Your task to perform on an android device: Show the shopping cart on bestbuy. Search for razer kraken on bestbuy, select the first entry, add it to the cart, then select checkout. Image 0: 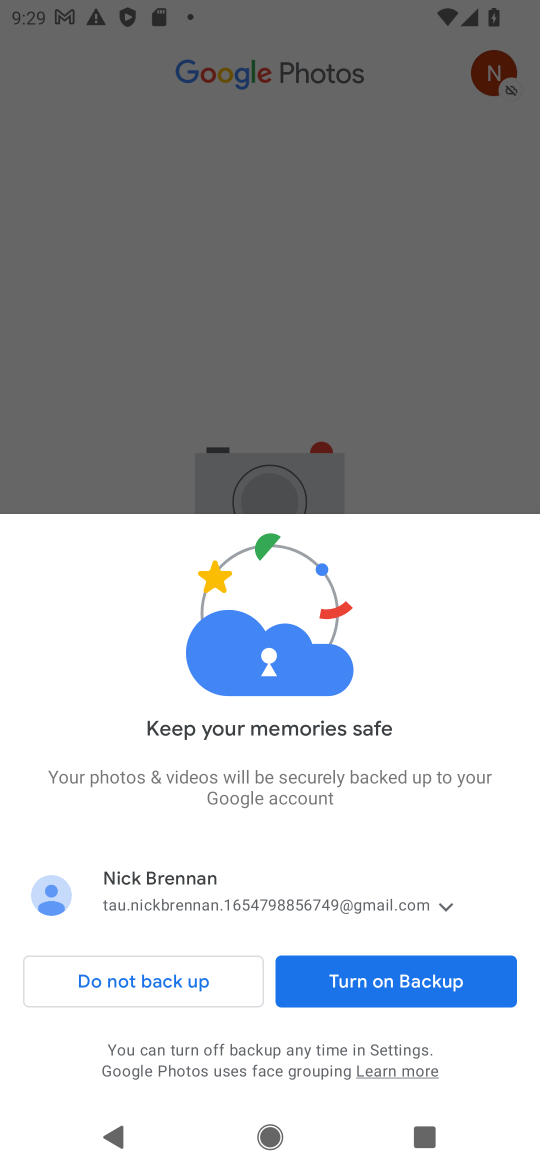
Step 0: press home button
Your task to perform on an android device: Show the shopping cart on bestbuy. Search for razer kraken on bestbuy, select the first entry, add it to the cart, then select checkout. Image 1: 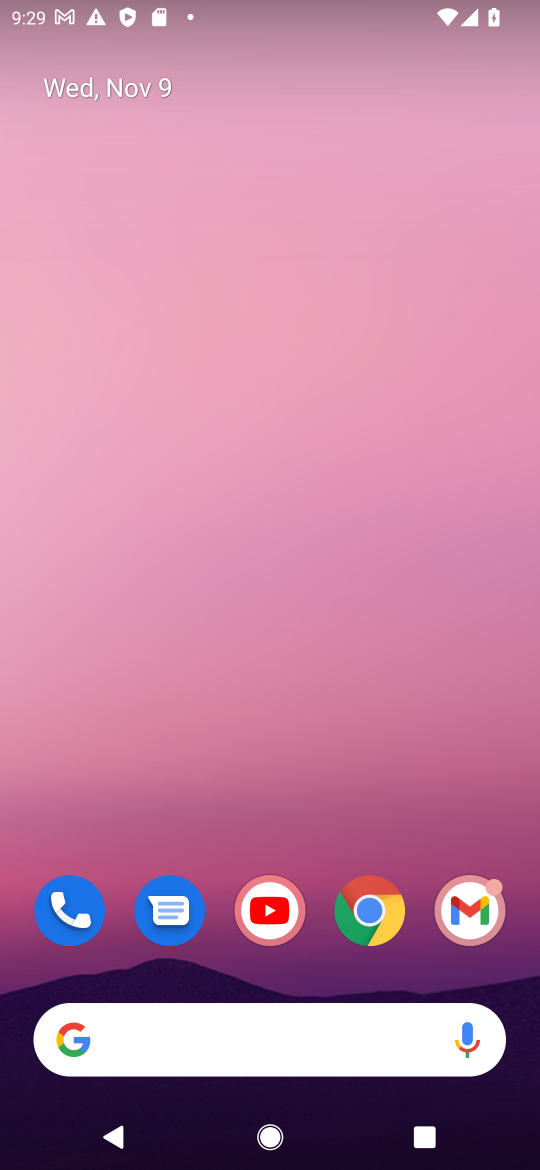
Step 1: click (371, 916)
Your task to perform on an android device: Show the shopping cart on bestbuy. Search for razer kraken on bestbuy, select the first entry, add it to the cart, then select checkout. Image 2: 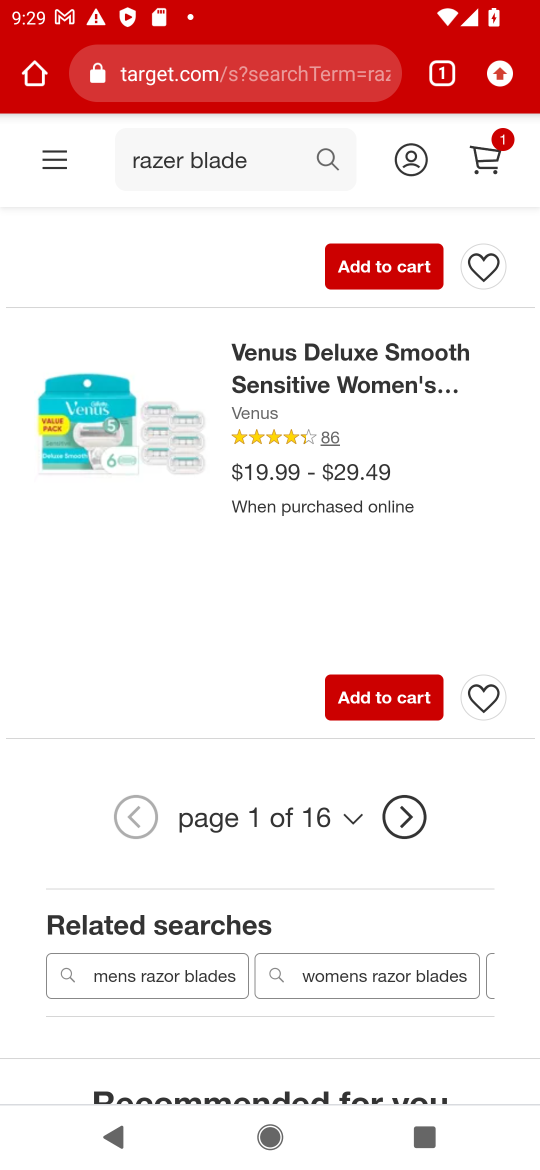
Step 2: click (200, 83)
Your task to perform on an android device: Show the shopping cart on bestbuy. Search for razer kraken on bestbuy, select the first entry, add it to the cart, then select checkout. Image 3: 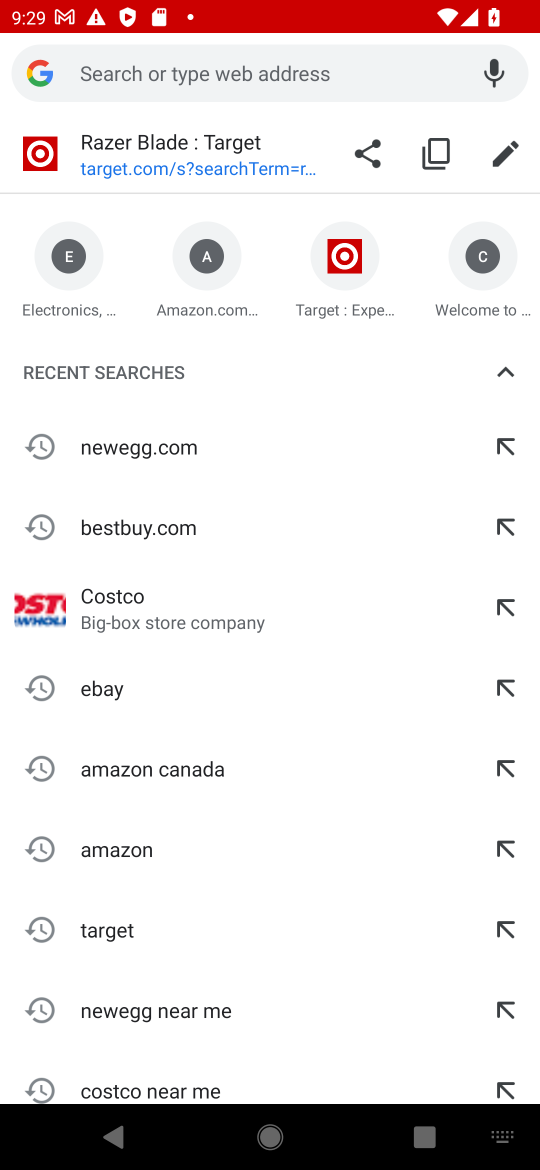
Step 3: click (123, 541)
Your task to perform on an android device: Show the shopping cart on bestbuy. Search for razer kraken on bestbuy, select the first entry, add it to the cart, then select checkout. Image 4: 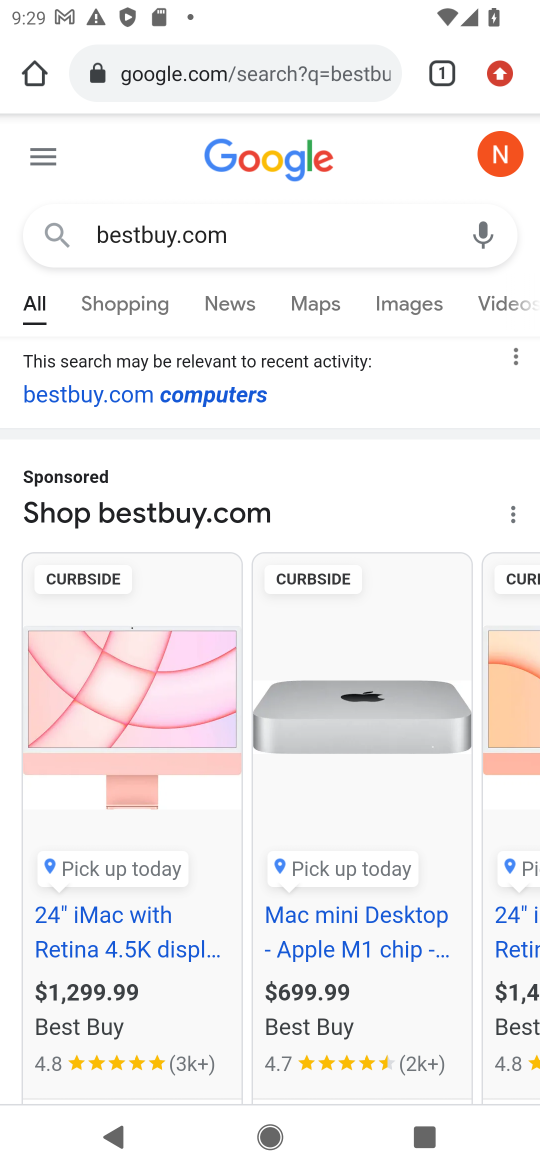
Step 4: drag from (239, 798) to (229, 295)
Your task to perform on an android device: Show the shopping cart on bestbuy. Search for razer kraken on bestbuy, select the first entry, add it to the cart, then select checkout. Image 5: 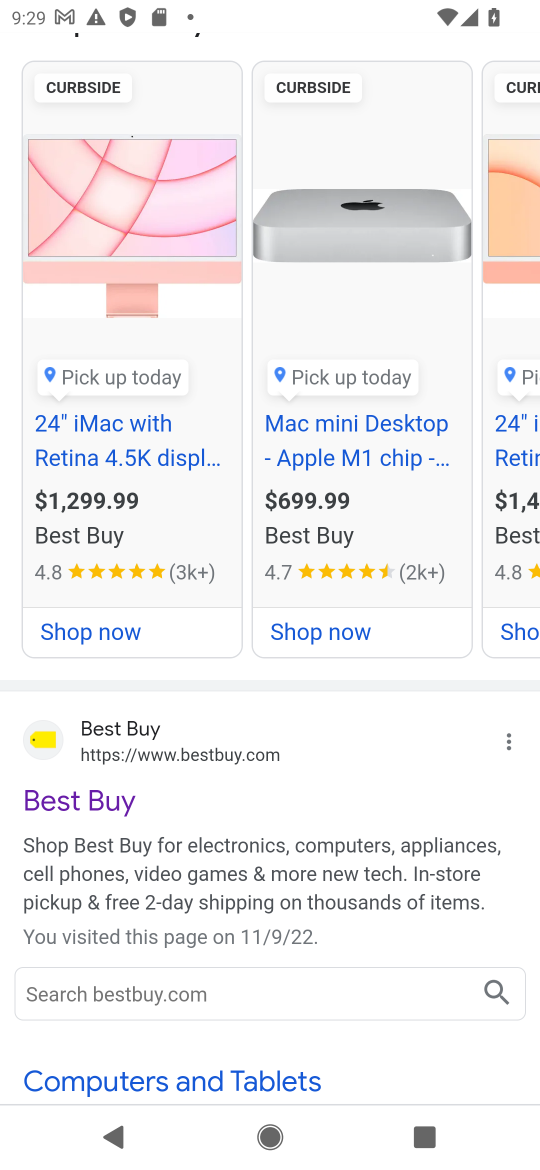
Step 5: click (87, 803)
Your task to perform on an android device: Show the shopping cart on bestbuy. Search for razer kraken on bestbuy, select the first entry, add it to the cart, then select checkout. Image 6: 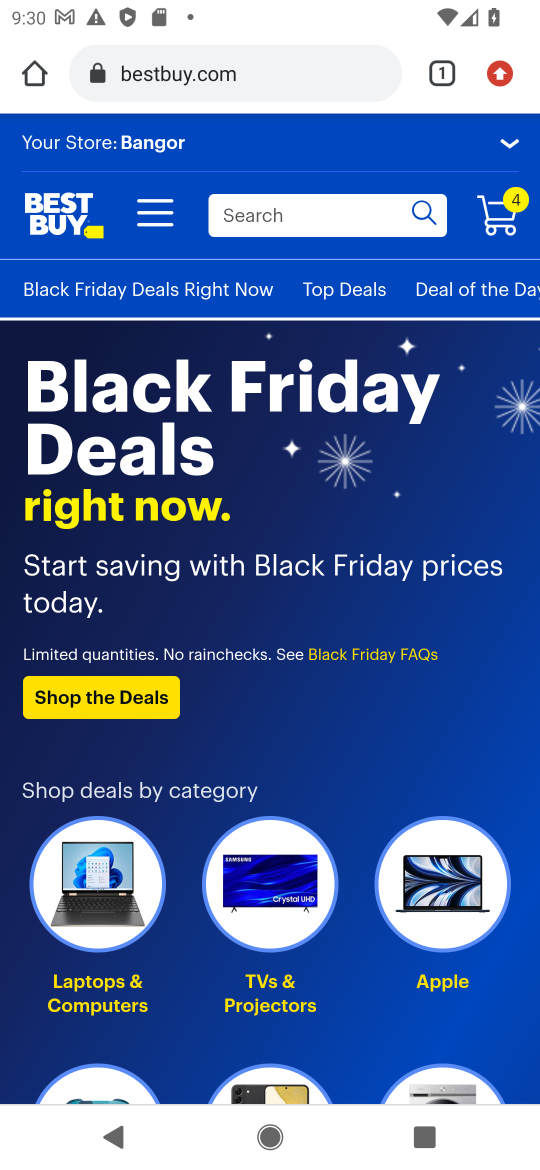
Step 6: click (238, 213)
Your task to perform on an android device: Show the shopping cart on bestbuy. Search for razer kraken on bestbuy, select the first entry, add it to the cart, then select checkout. Image 7: 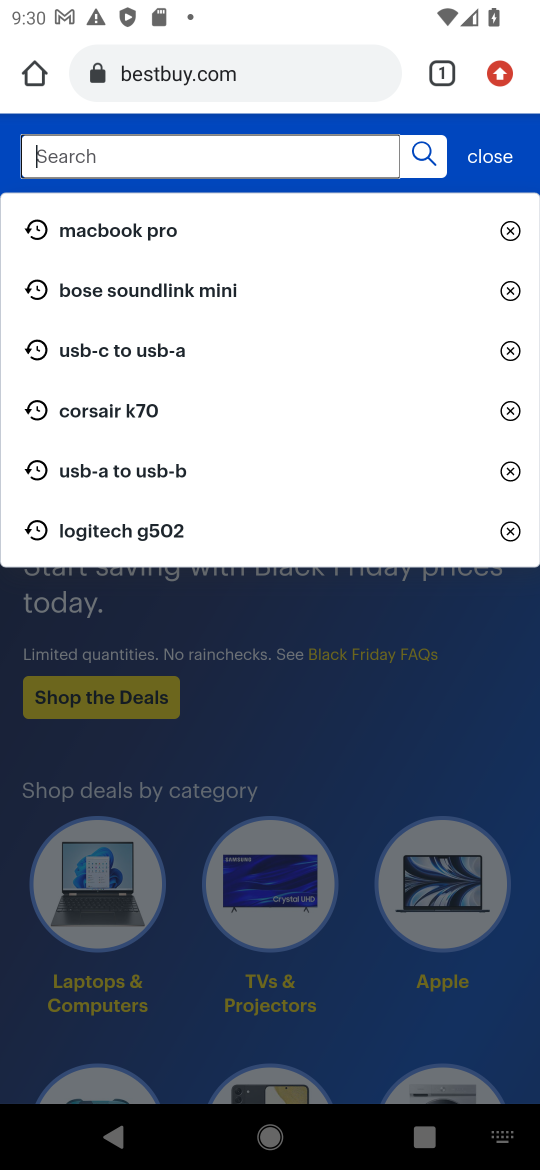
Step 7: type "razer kraken"
Your task to perform on an android device: Show the shopping cart on bestbuy. Search for razer kraken on bestbuy, select the first entry, add it to the cart, then select checkout. Image 8: 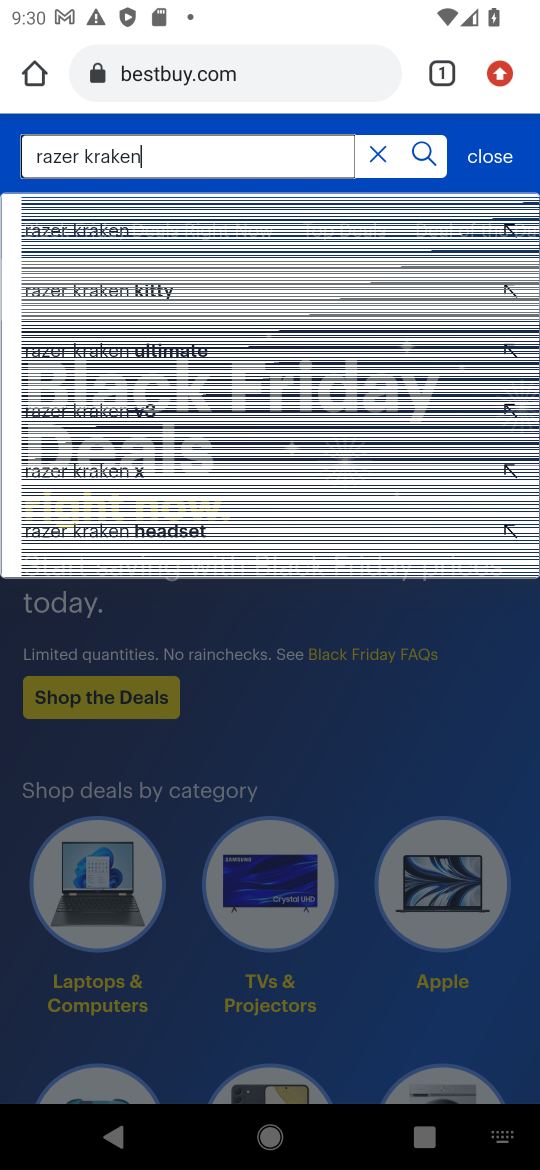
Step 8: click (73, 241)
Your task to perform on an android device: Show the shopping cart on bestbuy. Search for razer kraken on bestbuy, select the first entry, add it to the cart, then select checkout. Image 9: 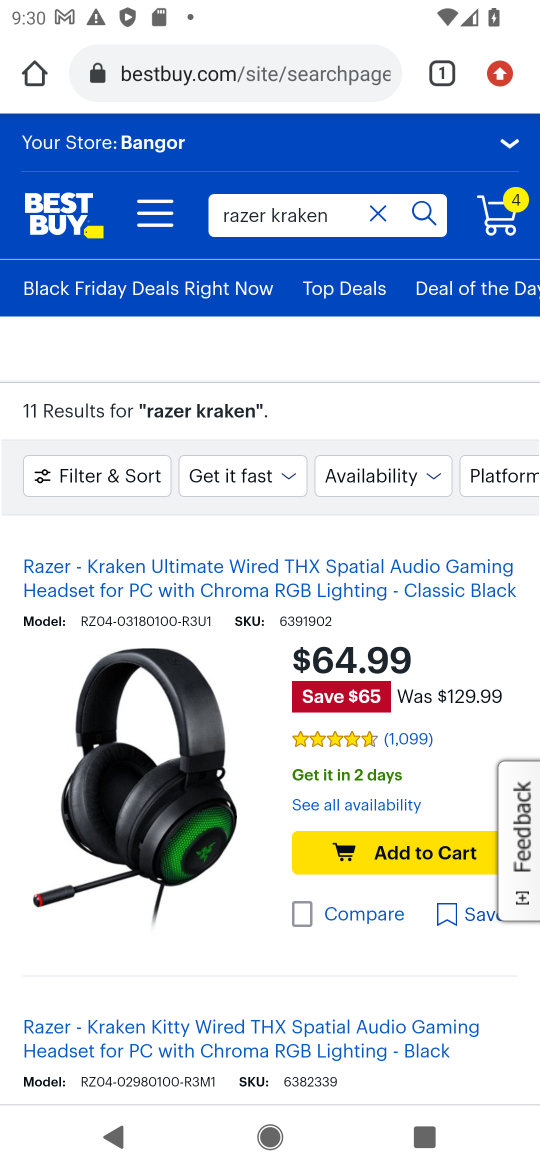
Step 9: click (490, 233)
Your task to perform on an android device: Show the shopping cart on bestbuy. Search for razer kraken on bestbuy, select the first entry, add it to the cart, then select checkout. Image 10: 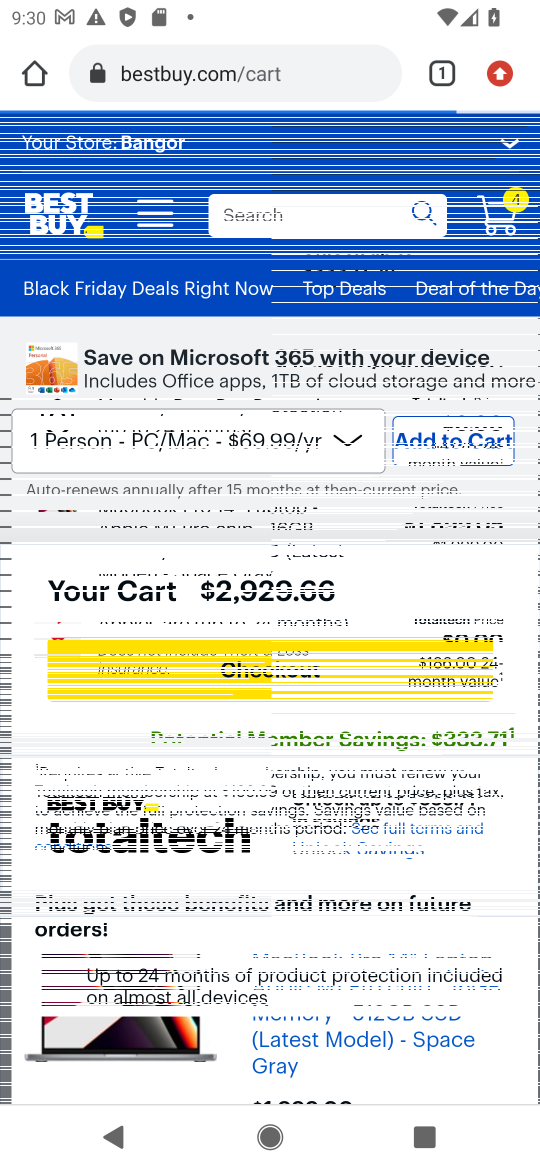
Step 10: click (263, 228)
Your task to perform on an android device: Show the shopping cart on bestbuy. Search for razer kraken on bestbuy, select the first entry, add it to the cart, then select checkout. Image 11: 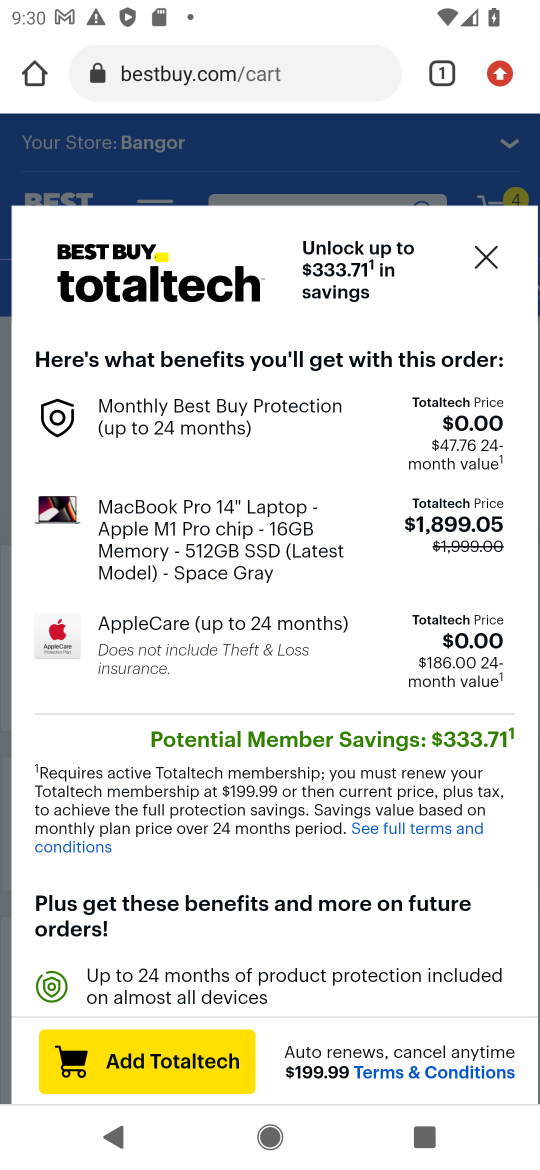
Step 11: click (488, 267)
Your task to perform on an android device: Show the shopping cart on bestbuy. Search for razer kraken on bestbuy, select the first entry, add it to the cart, then select checkout. Image 12: 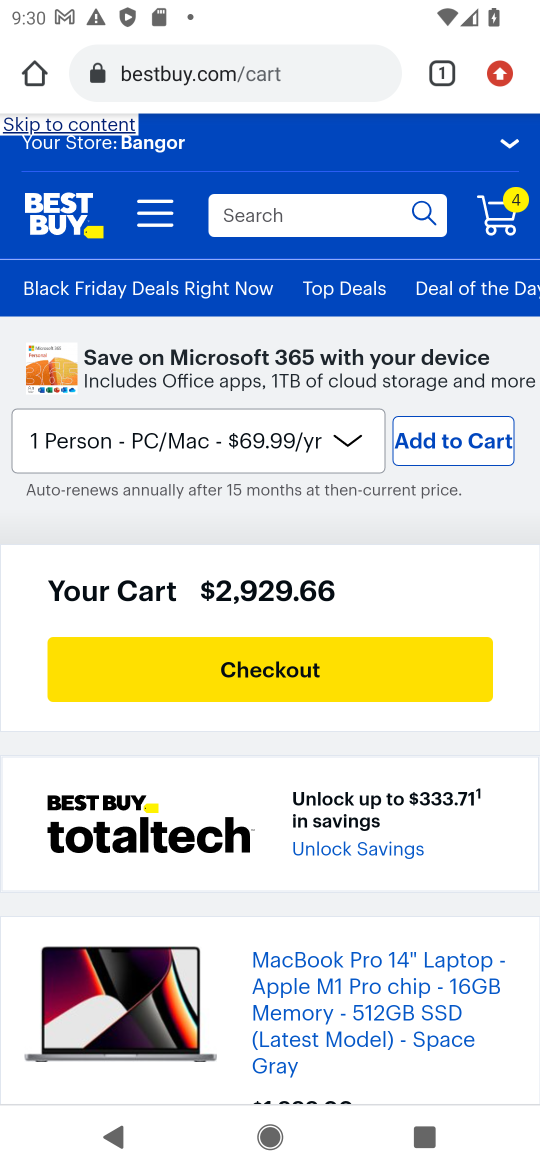
Step 12: click (305, 224)
Your task to perform on an android device: Show the shopping cart on bestbuy. Search for razer kraken on bestbuy, select the first entry, add it to the cart, then select checkout. Image 13: 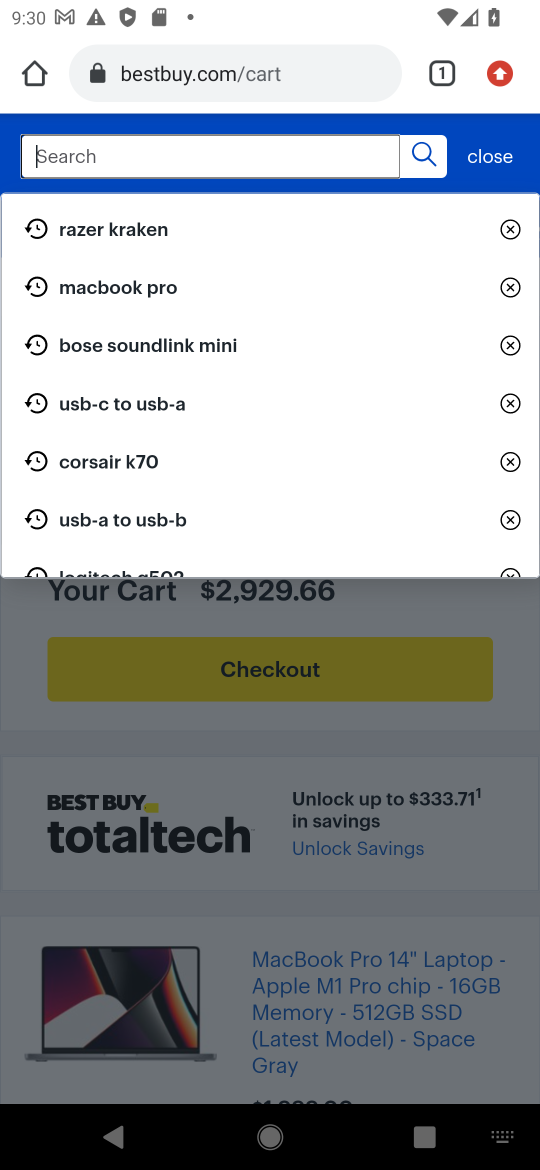
Step 13: click (162, 234)
Your task to perform on an android device: Show the shopping cart on bestbuy. Search for razer kraken on bestbuy, select the first entry, add it to the cart, then select checkout. Image 14: 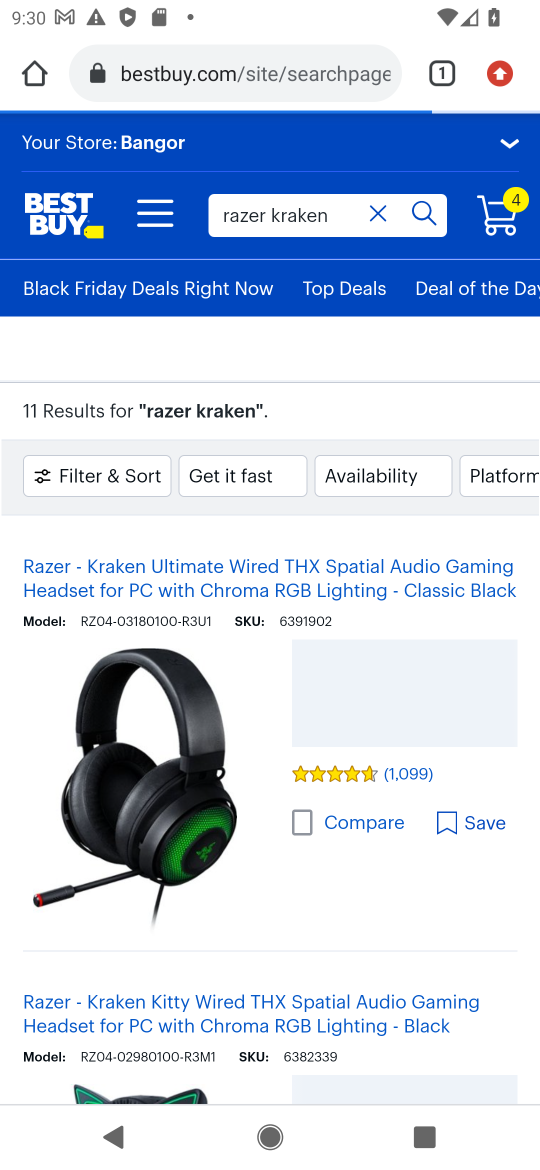
Step 14: drag from (351, 847) to (334, 537)
Your task to perform on an android device: Show the shopping cart on bestbuy. Search for razer kraken on bestbuy, select the first entry, add it to the cart, then select checkout. Image 15: 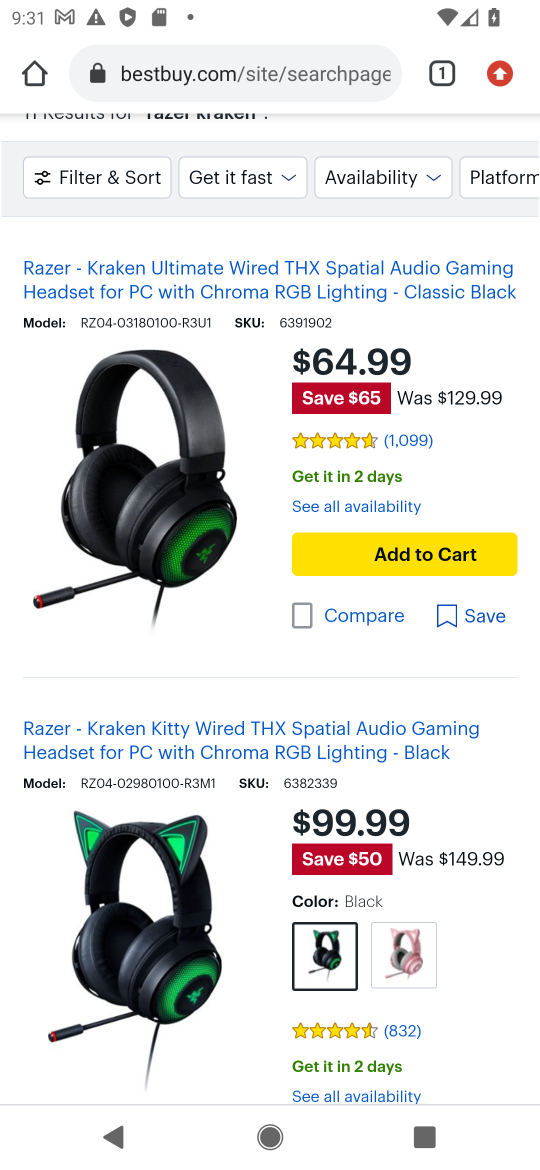
Step 15: click (402, 561)
Your task to perform on an android device: Show the shopping cart on bestbuy. Search for razer kraken on bestbuy, select the first entry, add it to the cart, then select checkout. Image 16: 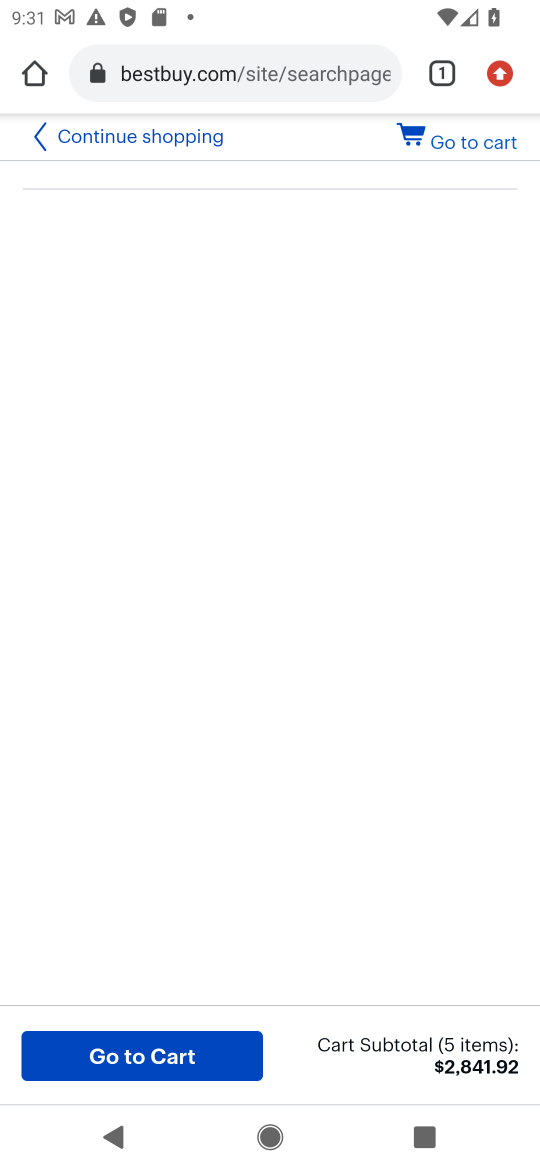
Step 16: click (452, 146)
Your task to perform on an android device: Show the shopping cart on bestbuy. Search for razer kraken on bestbuy, select the first entry, add it to the cart, then select checkout. Image 17: 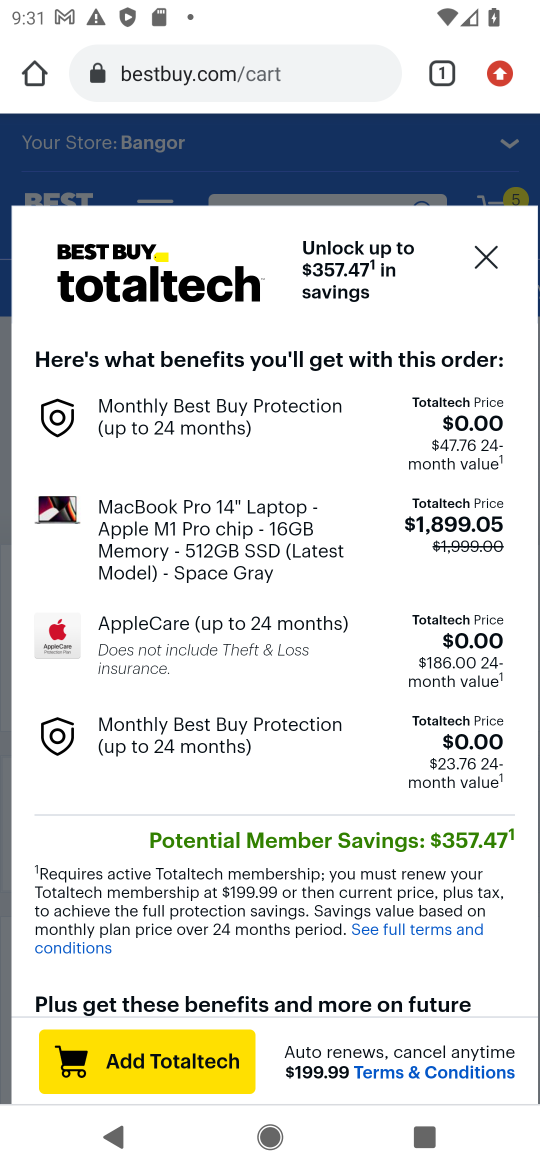
Step 17: click (484, 261)
Your task to perform on an android device: Show the shopping cart on bestbuy. Search for razer kraken on bestbuy, select the first entry, add it to the cart, then select checkout. Image 18: 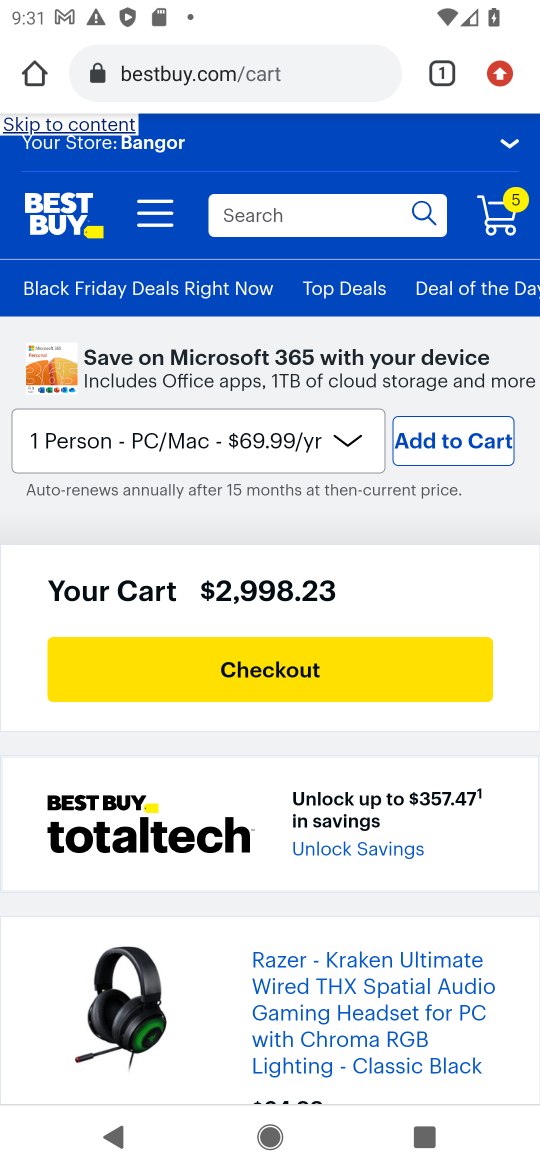
Step 18: click (283, 666)
Your task to perform on an android device: Show the shopping cart on bestbuy. Search for razer kraken on bestbuy, select the first entry, add it to the cart, then select checkout. Image 19: 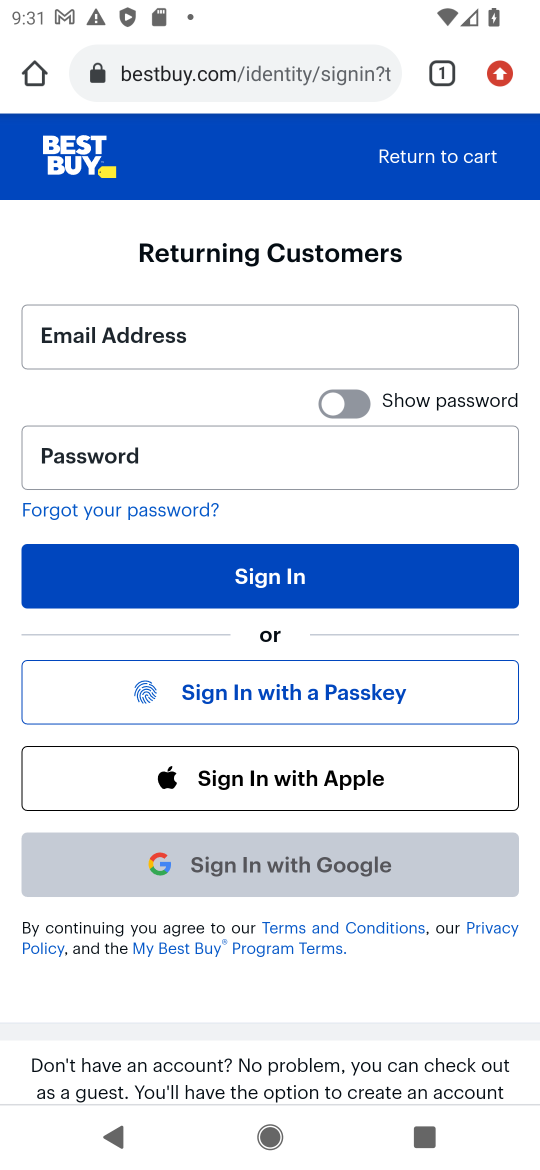
Step 19: task complete